Your task to perform on an android device: Open display settings Image 0: 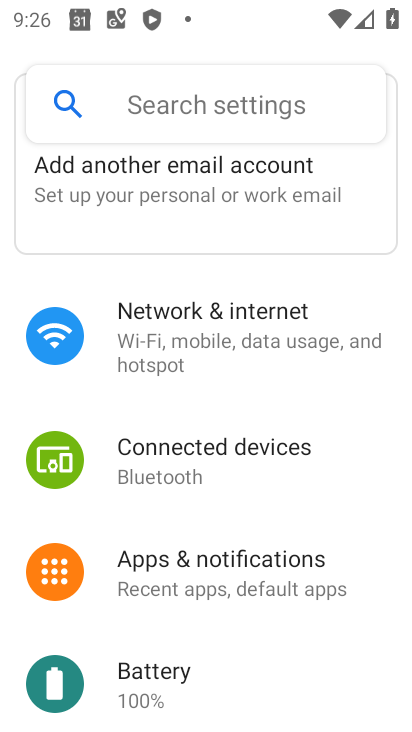
Step 0: drag from (239, 553) to (269, 168)
Your task to perform on an android device: Open display settings Image 1: 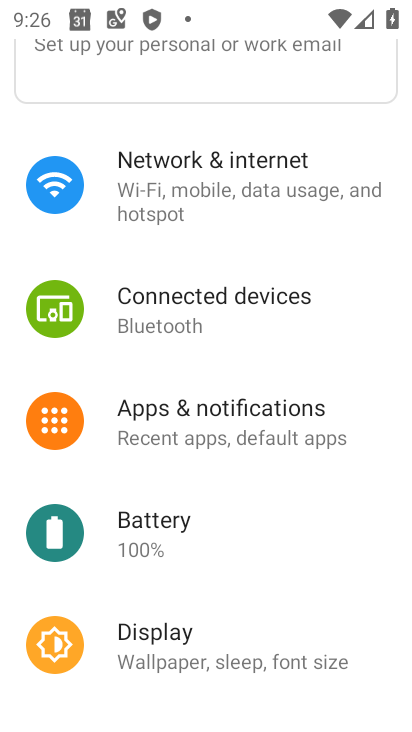
Step 1: click (172, 651)
Your task to perform on an android device: Open display settings Image 2: 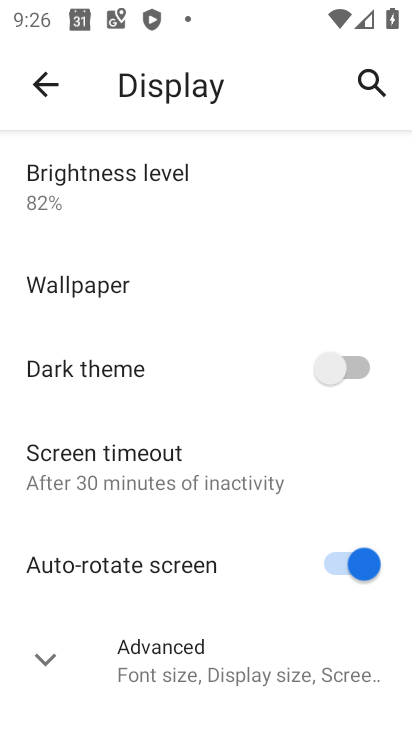
Step 2: task complete